Your task to perform on an android device: Clear the shopping cart on amazon.com. Add bose soundsport free to the cart on amazon.com Image 0: 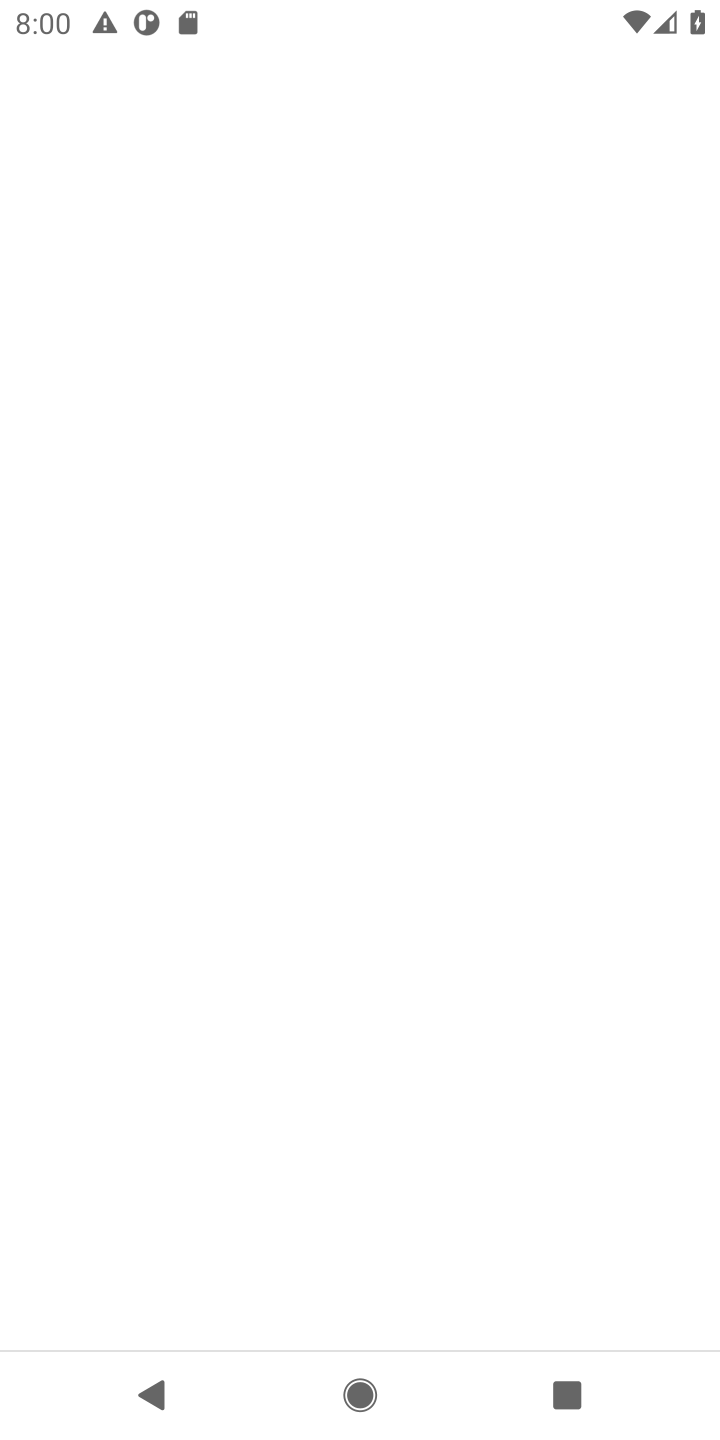
Step 0: press home button
Your task to perform on an android device: Clear the shopping cart on amazon.com. Add bose soundsport free to the cart on amazon.com Image 1: 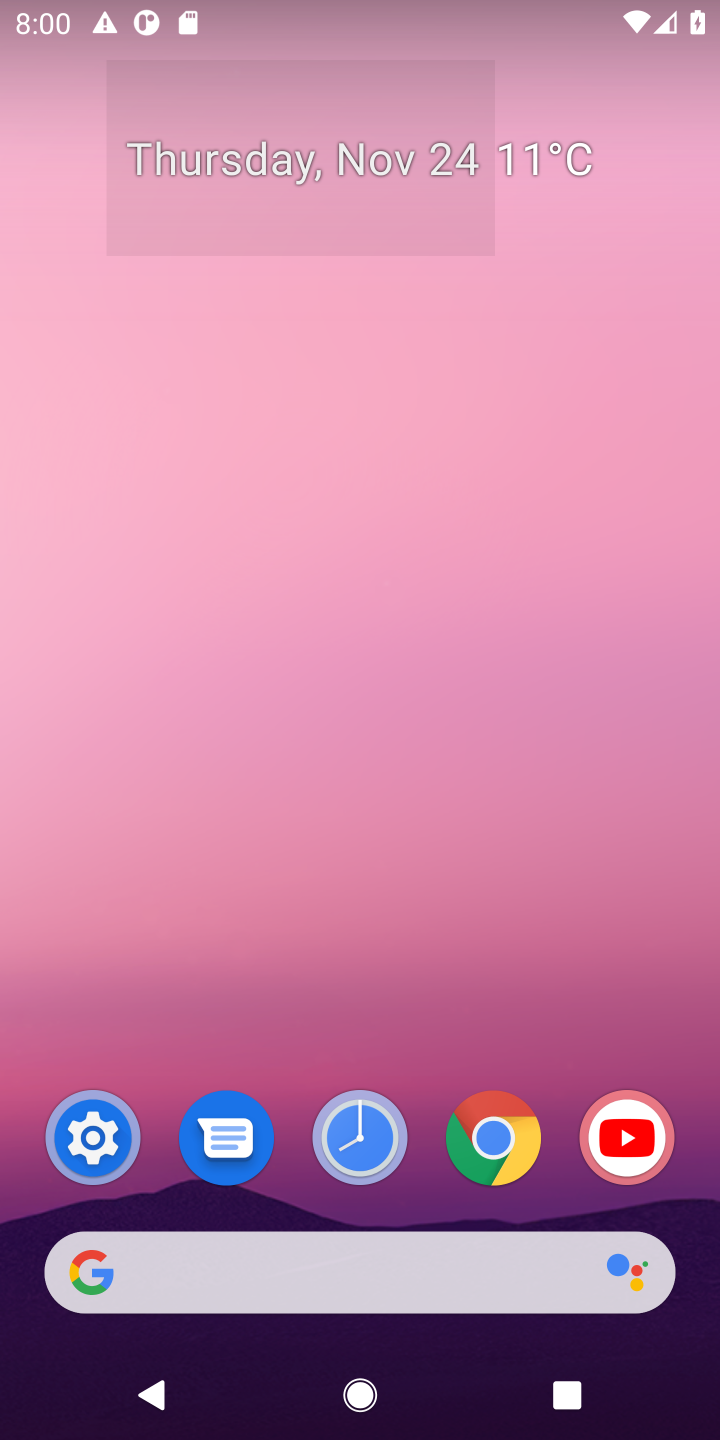
Step 1: click (473, 1142)
Your task to perform on an android device: Clear the shopping cart on amazon.com. Add bose soundsport free to the cart on amazon.com Image 2: 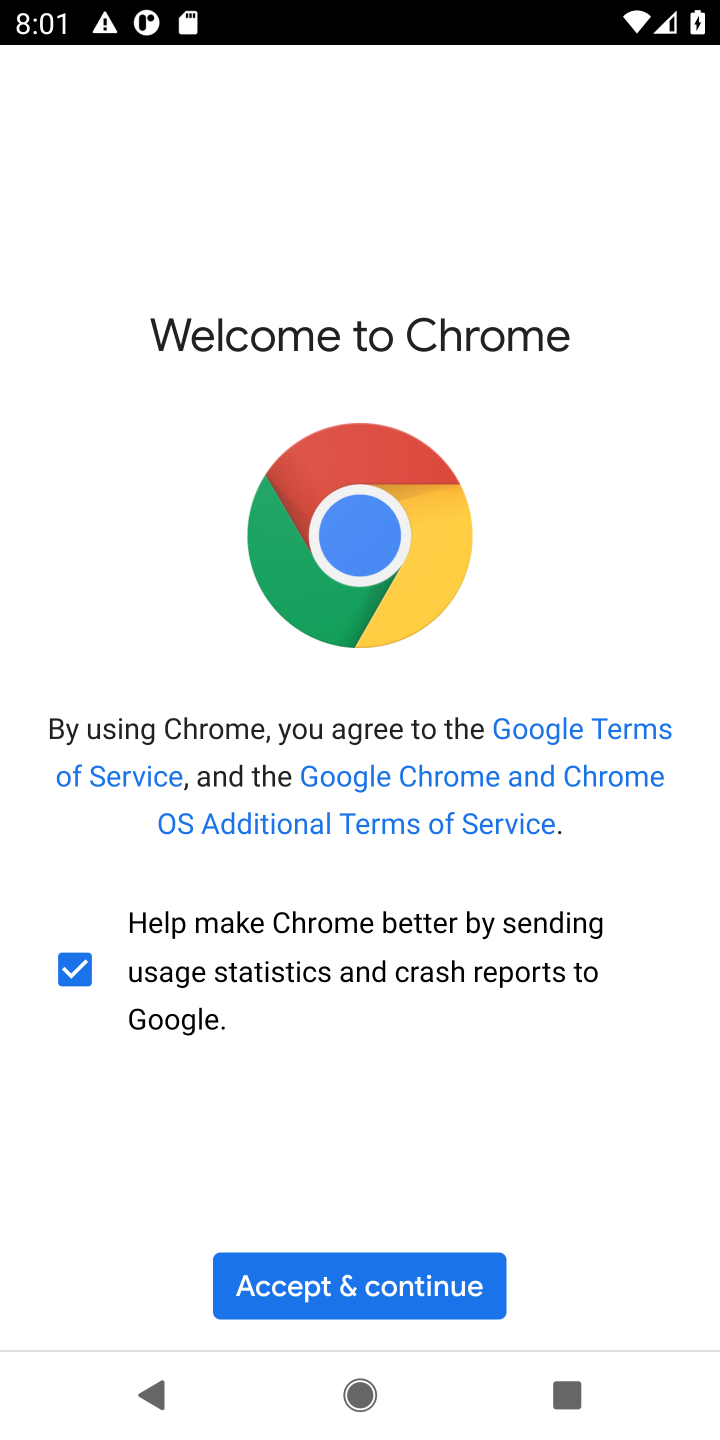
Step 2: click (441, 1263)
Your task to perform on an android device: Clear the shopping cart on amazon.com. Add bose soundsport free to the cart on amazon.com Image 3: 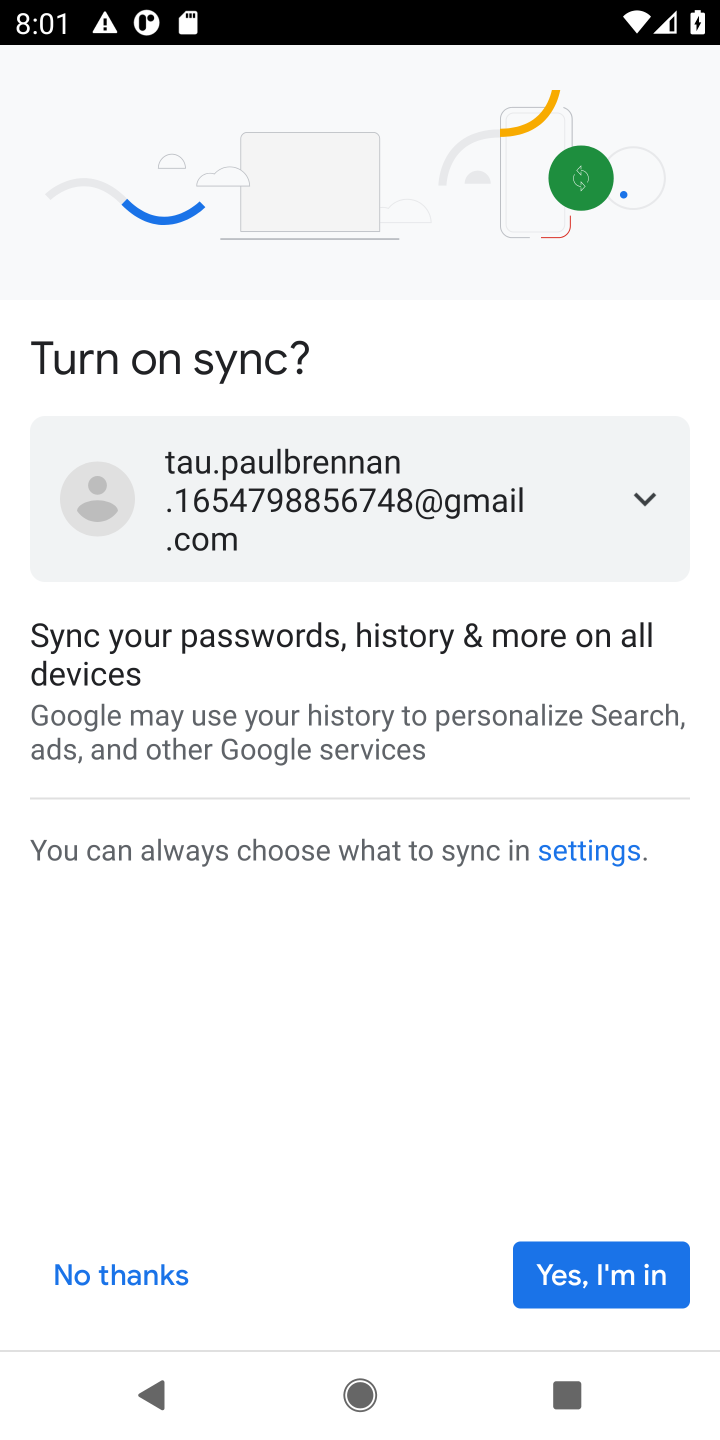
Step 3: click (618, 1248)
Your task to perform on an android device: Clear the shopping cart on amazon.com. Add bose soundsport free to the cart on amazon.com Image 4: 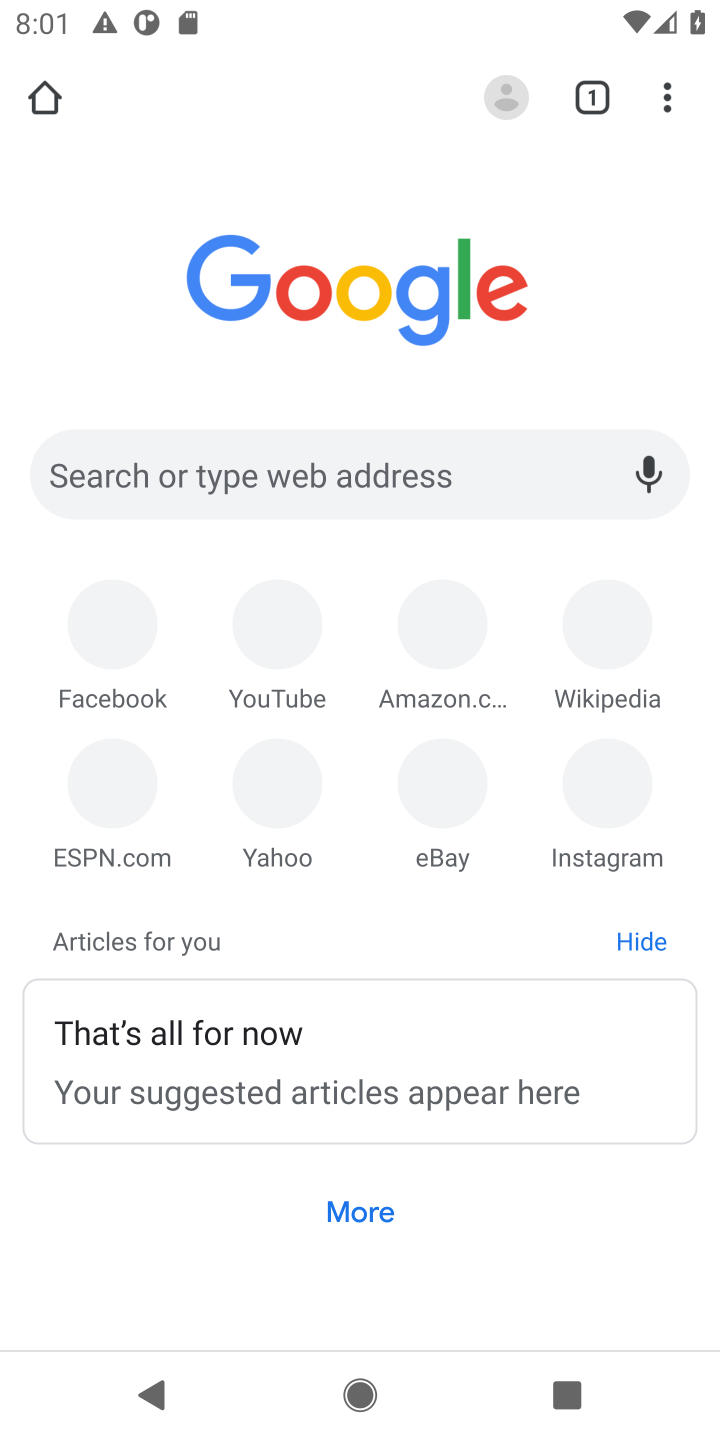
Step 4: task complete